Your task to perform on an android device: turn pop-ups on in chrome Image 0: 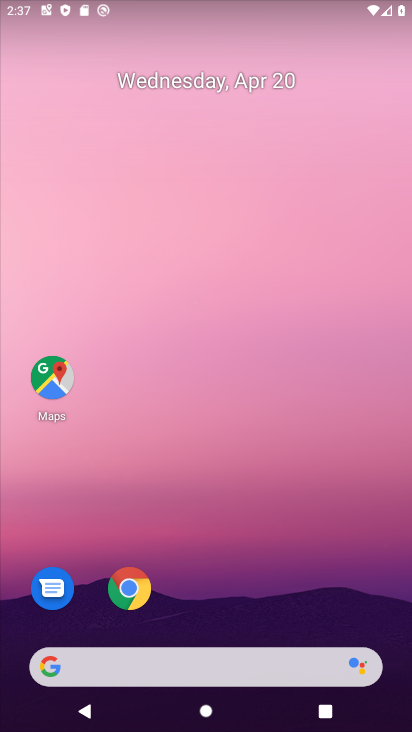
Step 0: click (130, 589)
Your task to perform on an android device: turn pop-ups on in chrome Image 1: 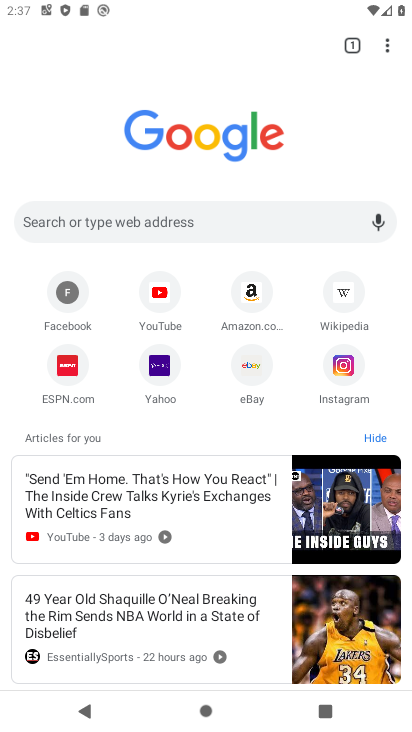
Step 1: click (384, 48)
Your task to perform on an android device: turn pop-ups on in chrome Image 2: 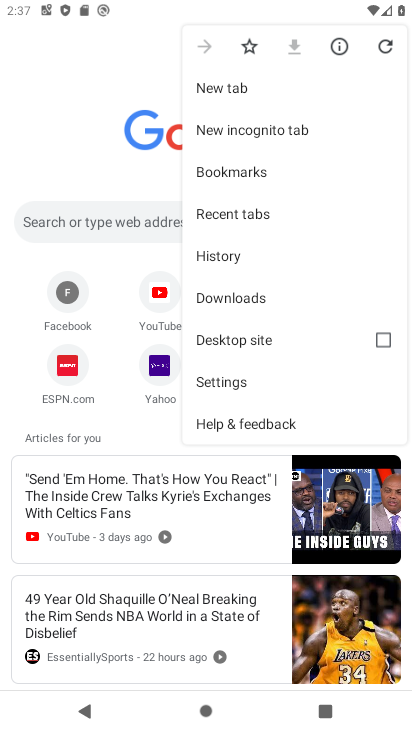
Step 2: click (241, 386)
Your task to perform on an android device: turn pop-ups on in chrome Image 3: 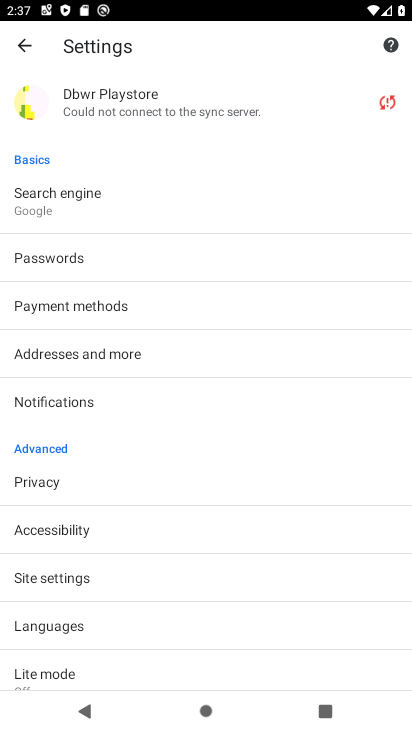
Step 3: click (75, 582)
Your task to perform on an android device: turn pop-ups on in chrome Image 4: 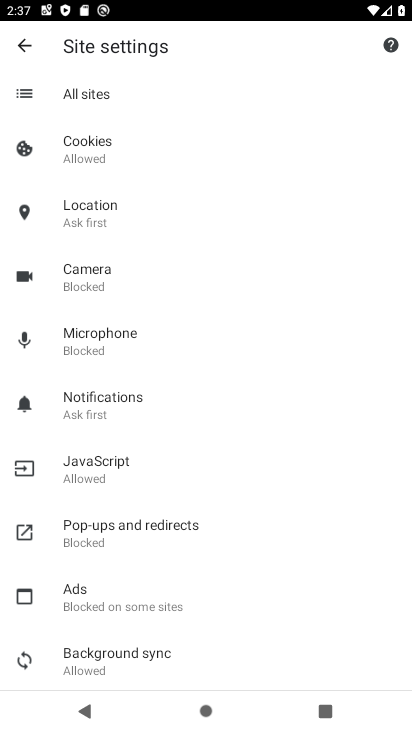
Step 4: click (99, 532)
Your task to perform on an android device: turn pop-ups on in chrome Image 5: 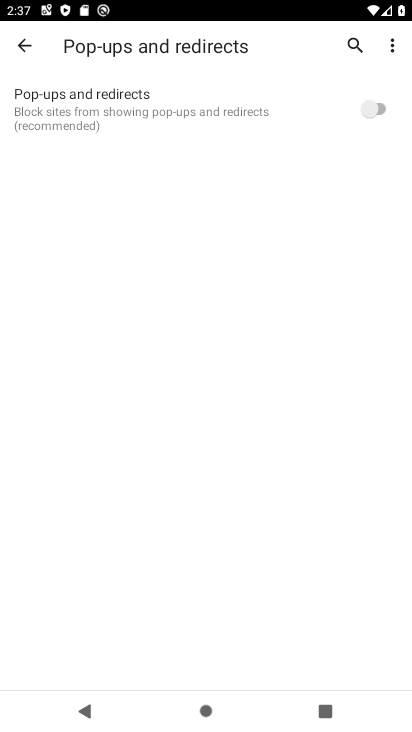
Step 5: click (369, 99)
Your task to perform on an android device: turn pop-ups on in chrome Image 6: 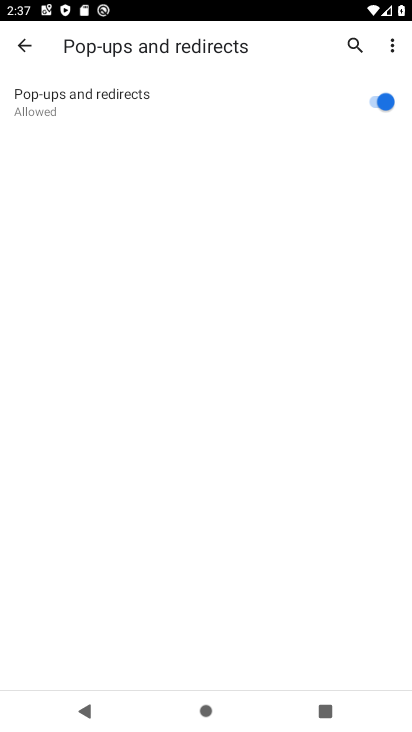
Step 6: task complete